Your task to perform on an android device: toggle priority inbox in the gmail app Image 0: 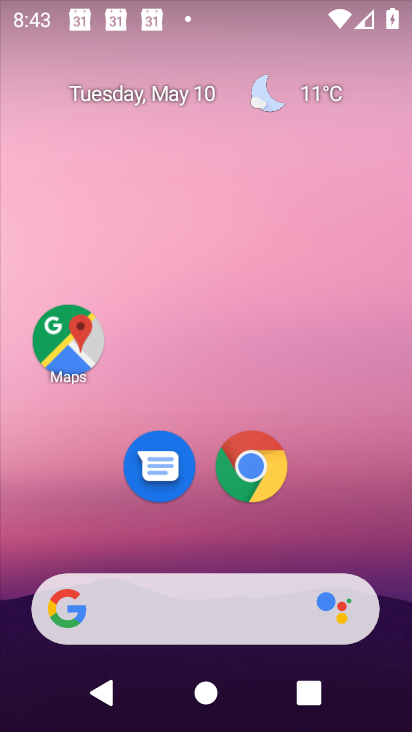
Step 0: drag from (220, 504) to (191, 1)
Your task to perform on an android device: toggle priority inbox in the gmail app Image 1: 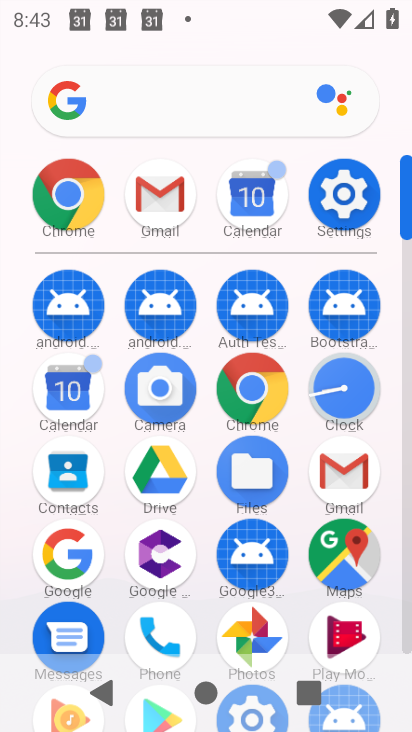
Step 1: click (357, 479)
Your task to perform on an android device: toggle priority inbox in the gmail app Image 2: 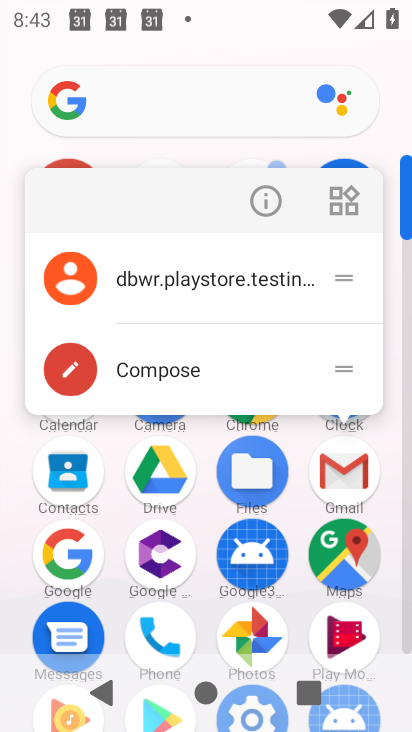
Step 2: click (347, 484)
Your task to perform on an android device: toggle priority inbox in the gmail app Image 3: 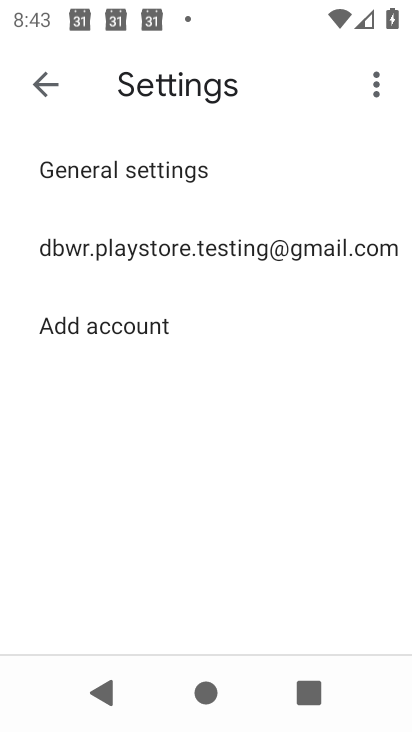
Step 3: click (145, 256)
Your task to perform on an android device: toggle priority inbox in the gmail app Image 4: 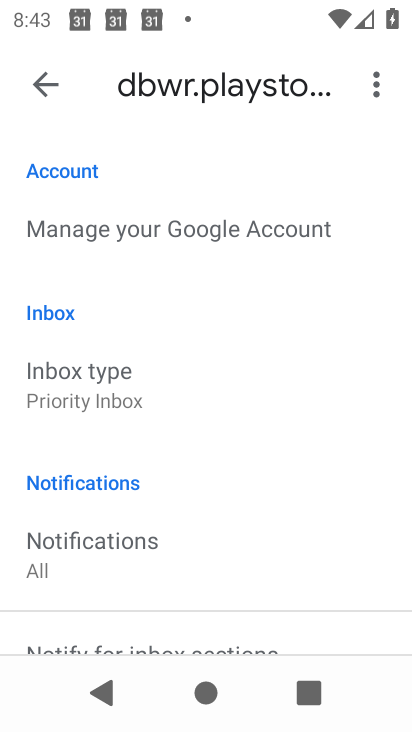
Step 4: click (99, 385)
Your task to perform on an android device: toggle priority inbox in the gmail app Image 5: 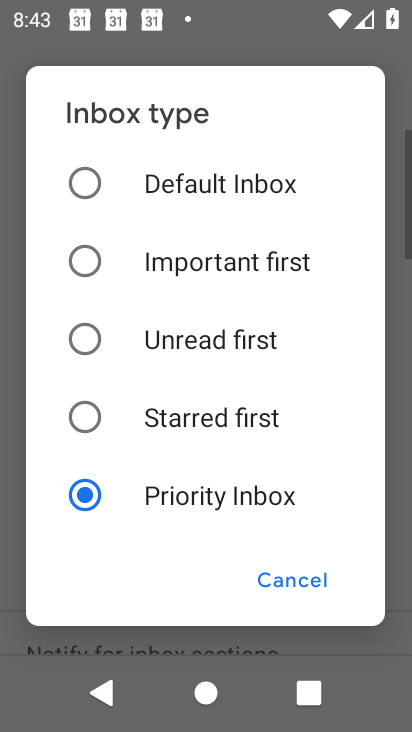
Step 5: click (96, 179)
Your task to perform on an android device: toggle priority inbox in the gmail app Image 6: 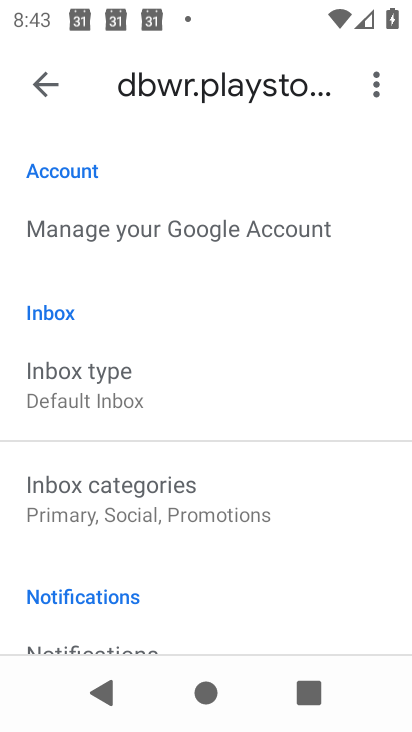
Step 6: task complete